Your task to perform on an android device: Search for vegetarian restaurants on Maps Image 0: 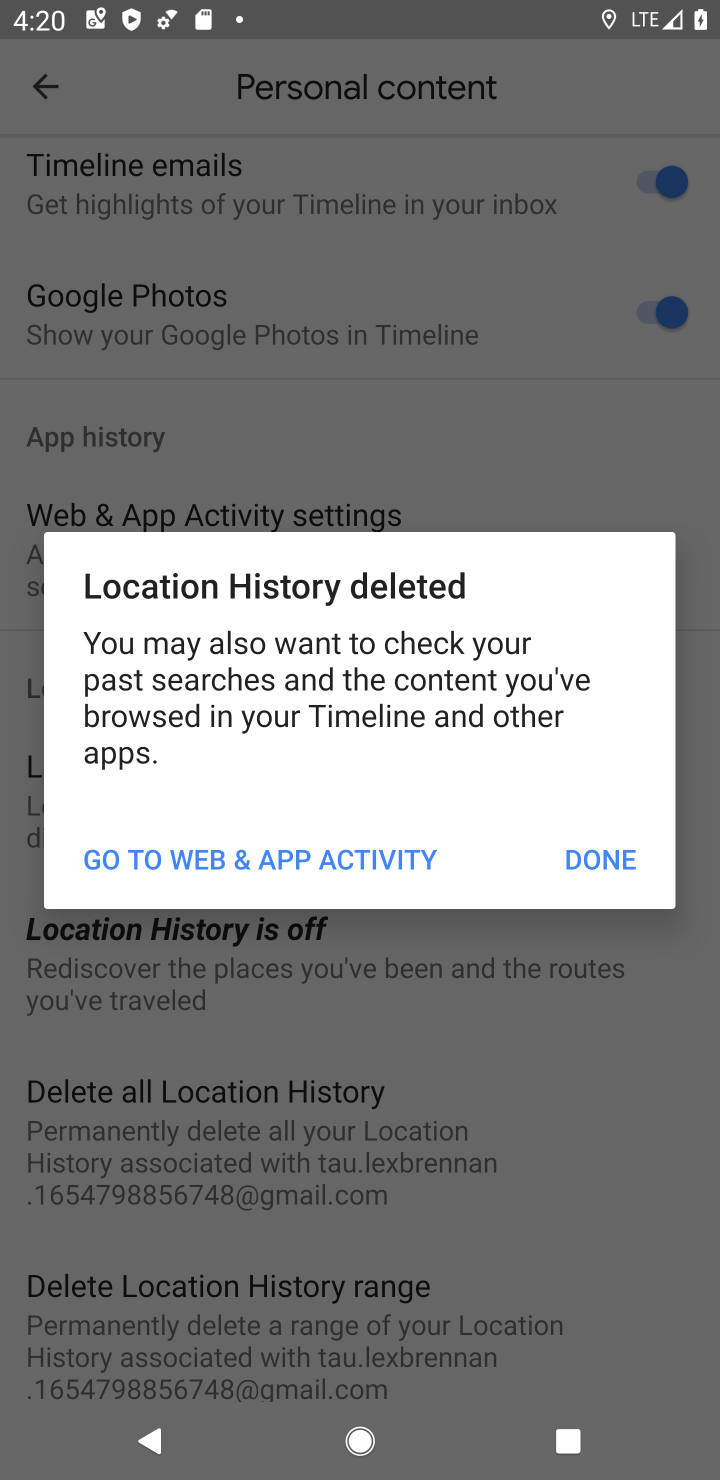
Step 0: press home button
Your task to perform on an android device: Search for vegetarian restaurants on Maps Image 1: 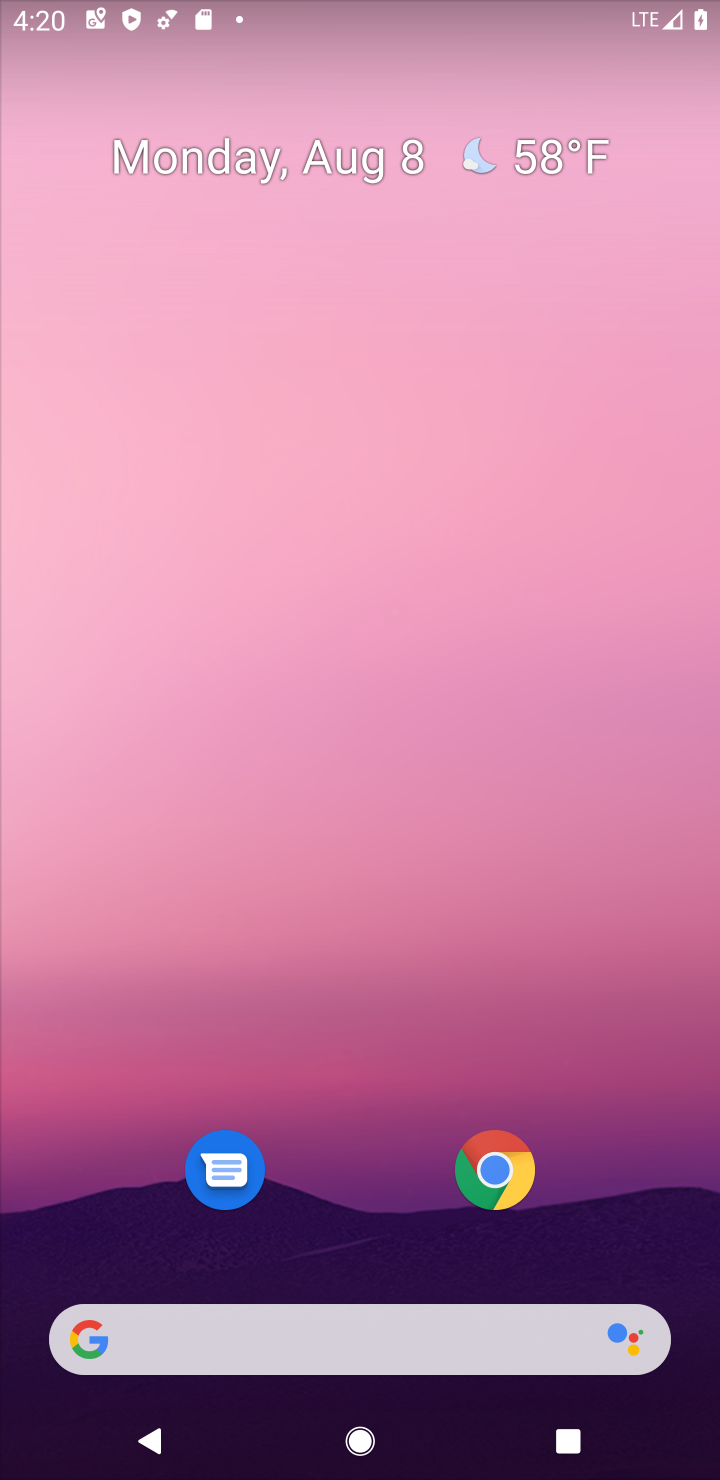
Step 1: drag from (325, 698) to (289, 378)
Your task to perform on an android device: Search for vegetarian restaurants on Maps Image 2: 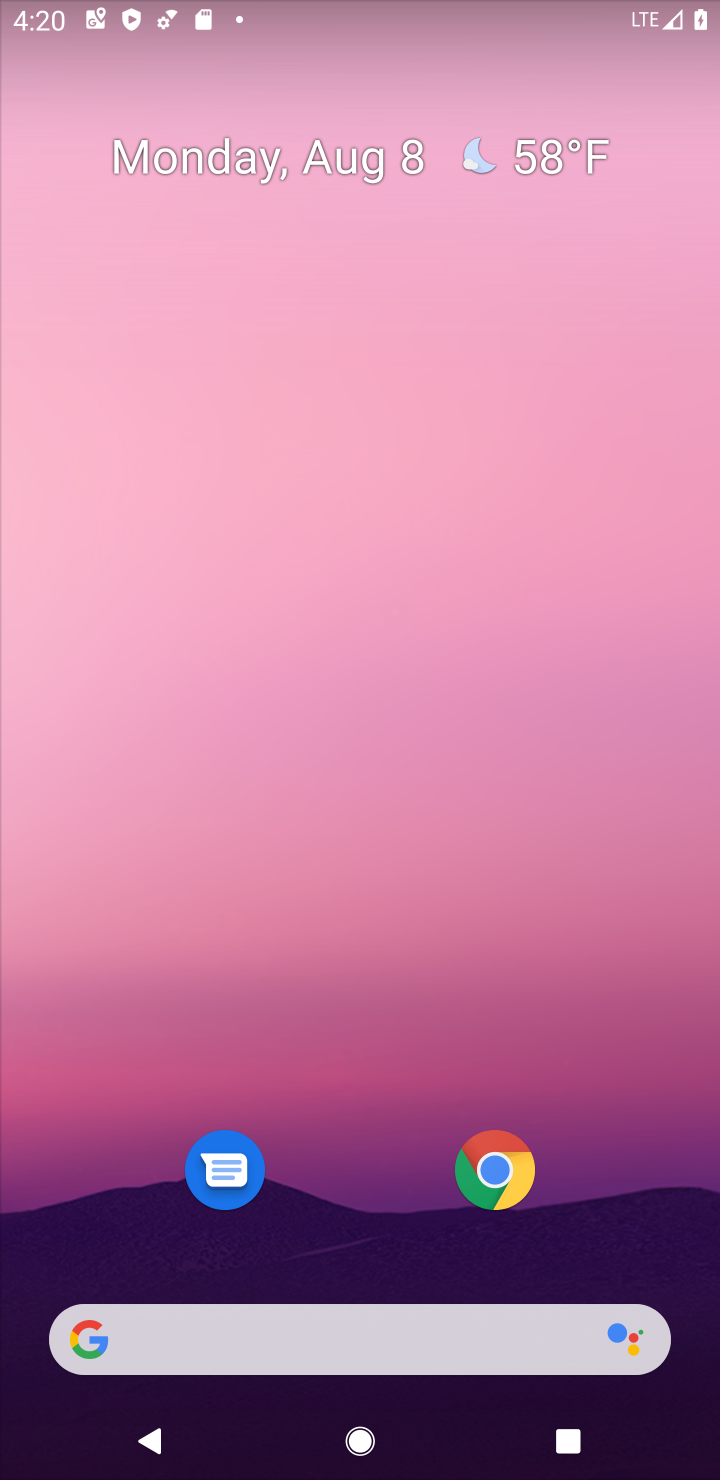
Step 2: drag from (370, 1223) to (373, 303)
Your task to perform on an android device: Search for vegetarian restaurants on Maps Image 3: 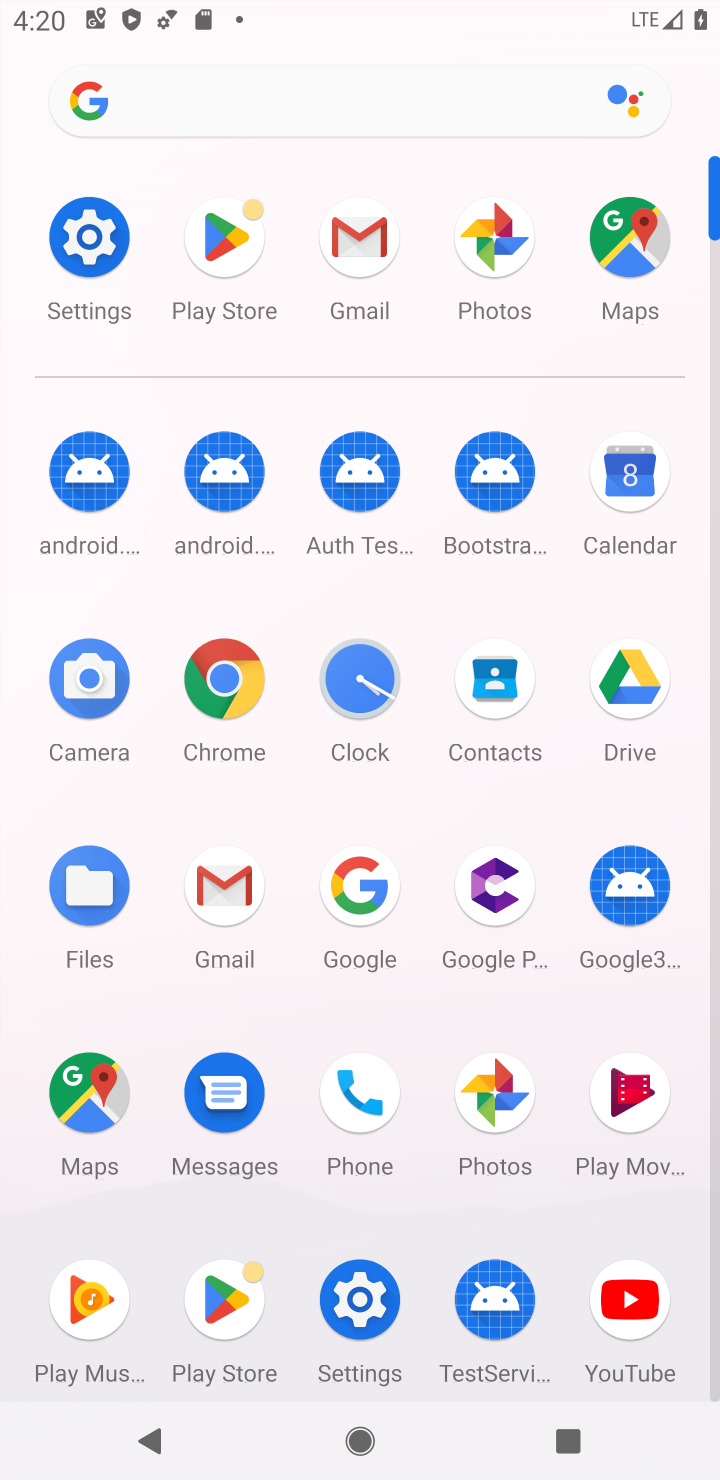
Step 3: click (658, 237)
Your task to perform on an android device: Search for vegetarian restaurants on Maps Image 4: 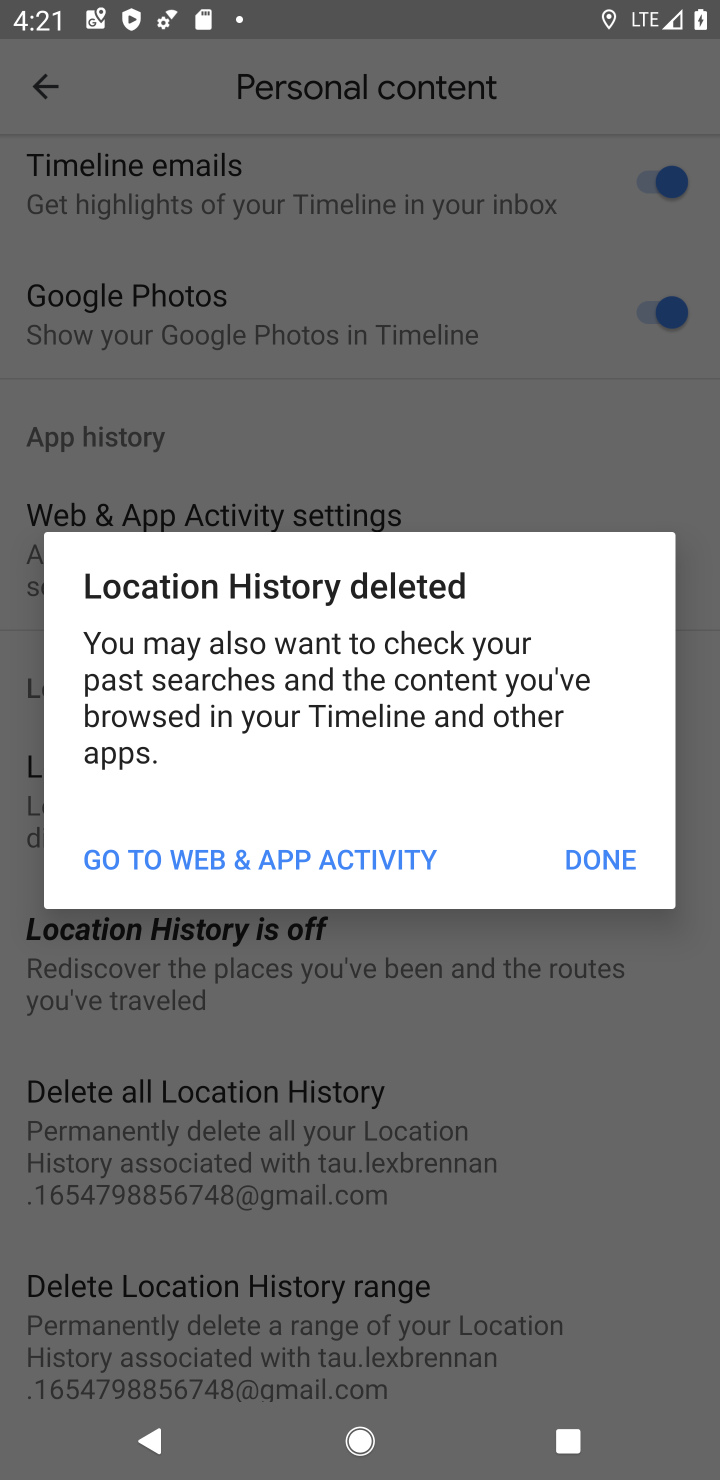
Step 4: click (571, 853)
Your task to perform on an android device: Search for vegetarian restaurants on Maps Image 5: 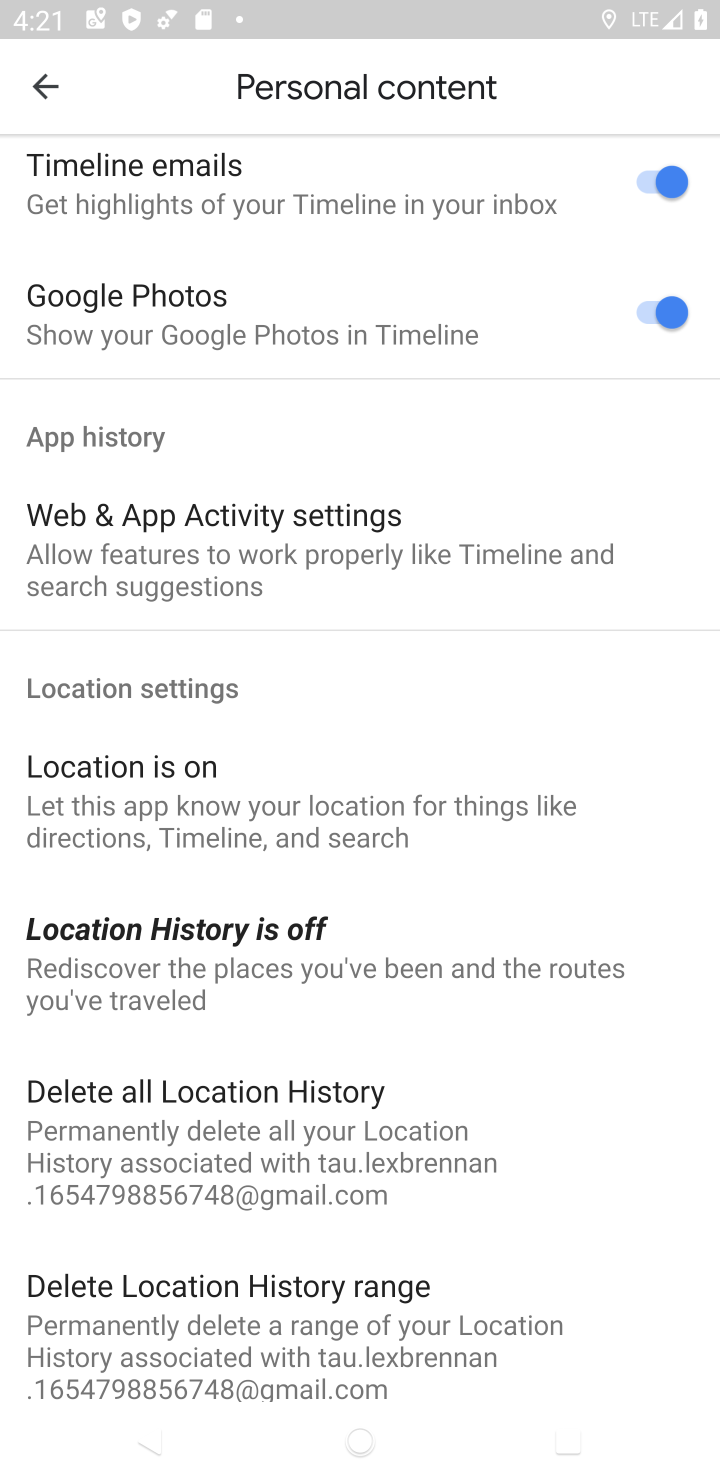
Step 5: click (37, 81)
Your task to perform on an android device: Search for vegetarian restaurants on Maps Image 6: 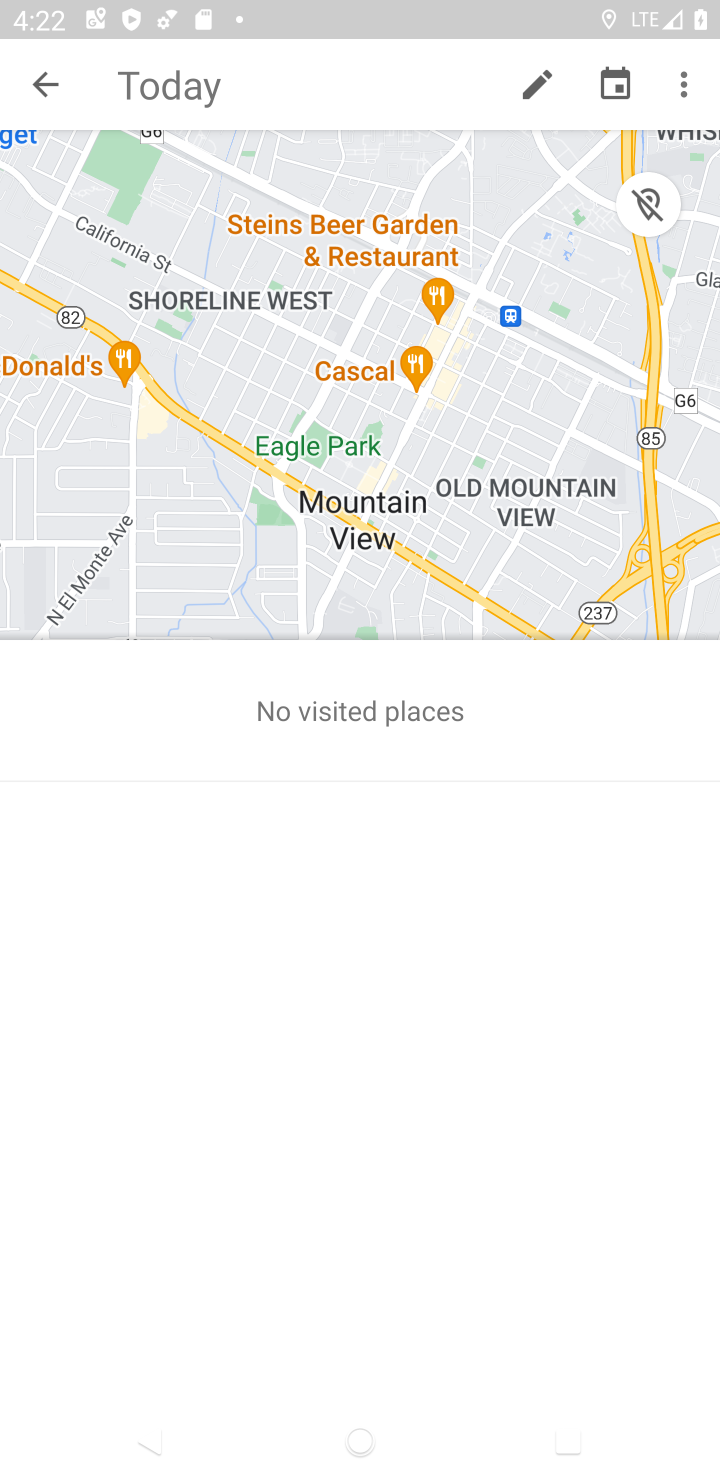
Step 6: click (45, 82)
Your task to perform on an android device: Search for vegetarian restaurants on Maps Image 7: 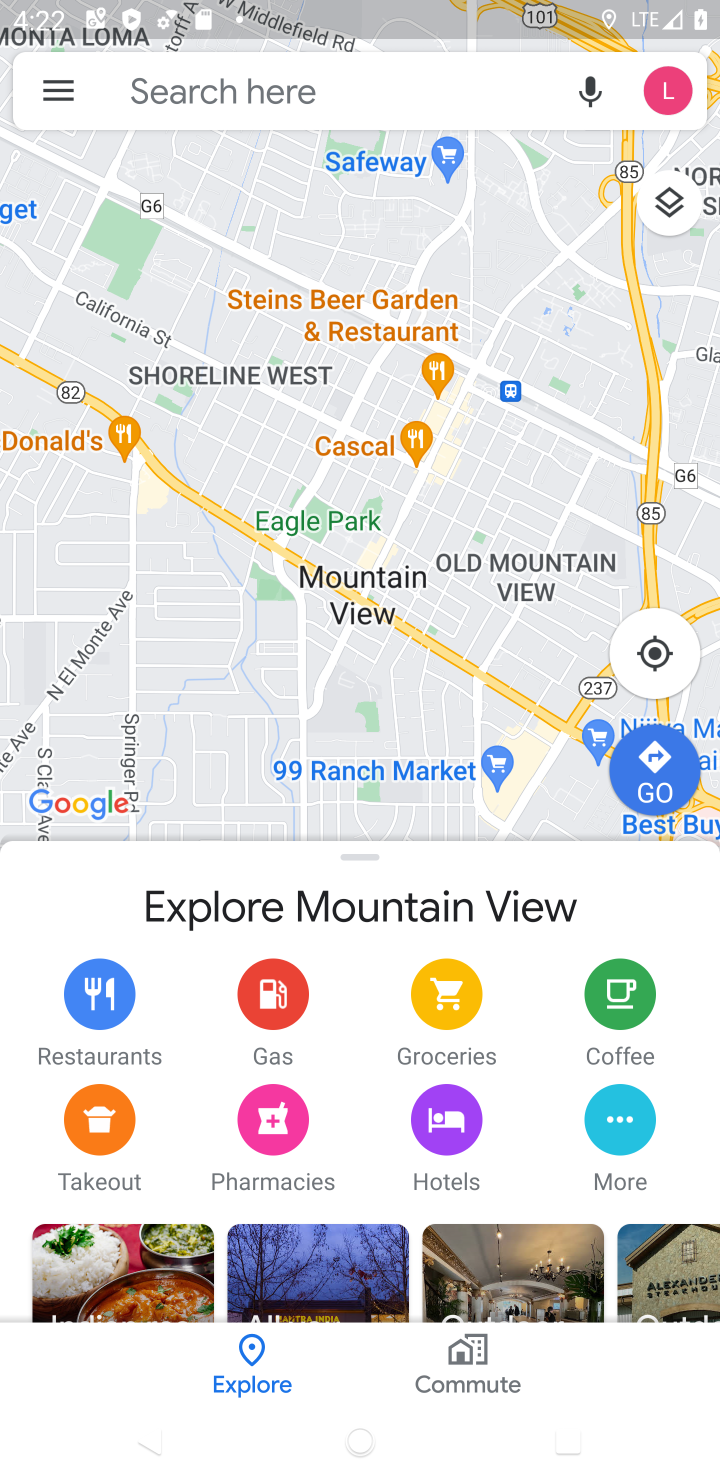
Step 7: click (218, 103)
Your task to perform on an android device: Search for vegetarian restaurants on Maps Image 8: 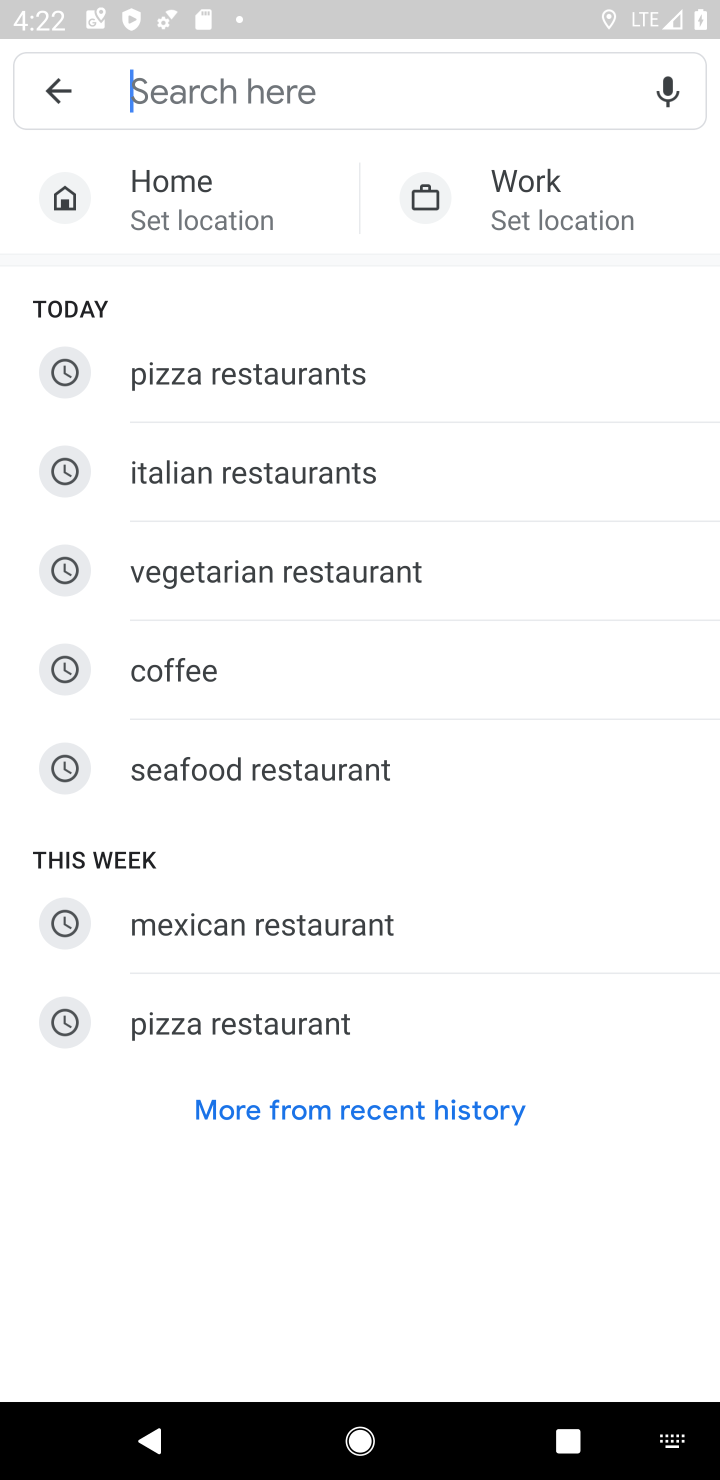
Step 8: click (370, 595)
Your task to perform on an android device: Search for vegetarian restaurants on Maps Image 9: 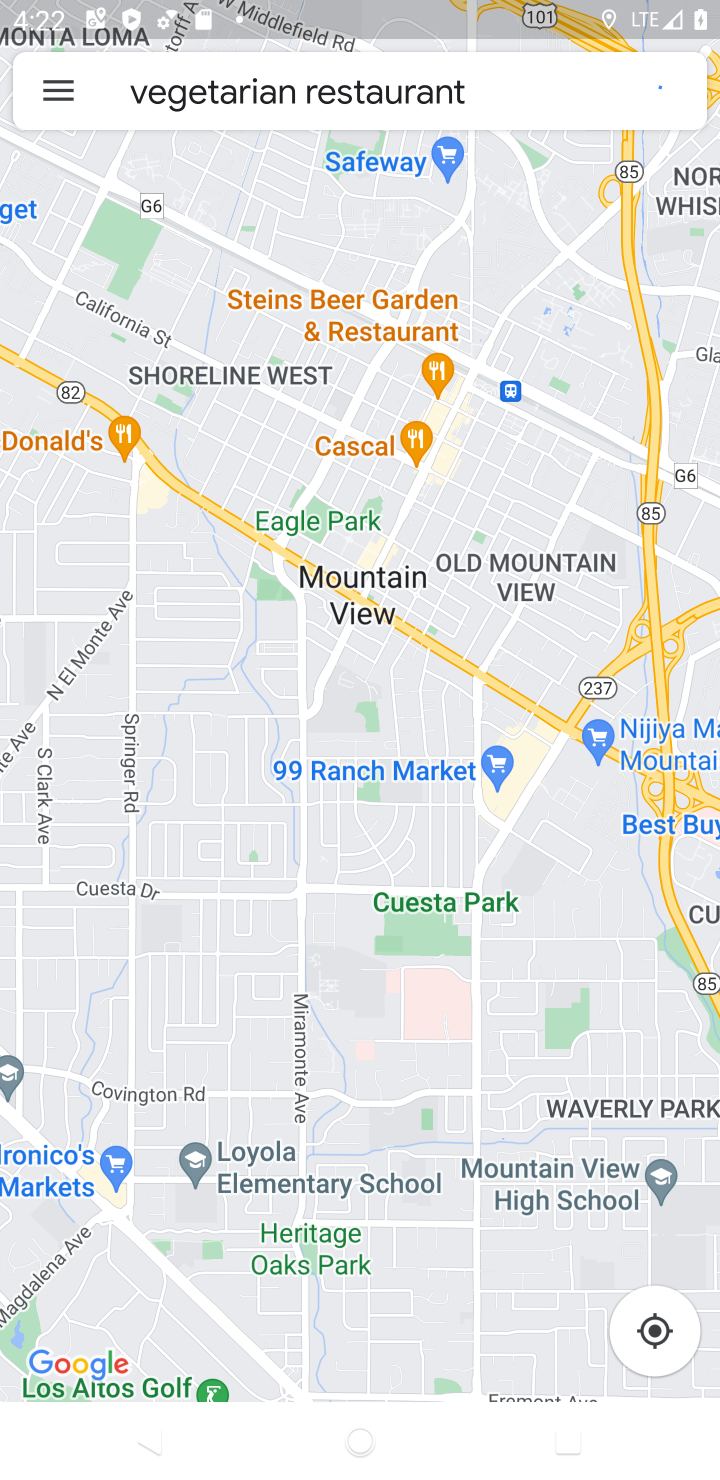
Step 9: task complete